Your task to perform on an android device: Open wifi settings Image 0: 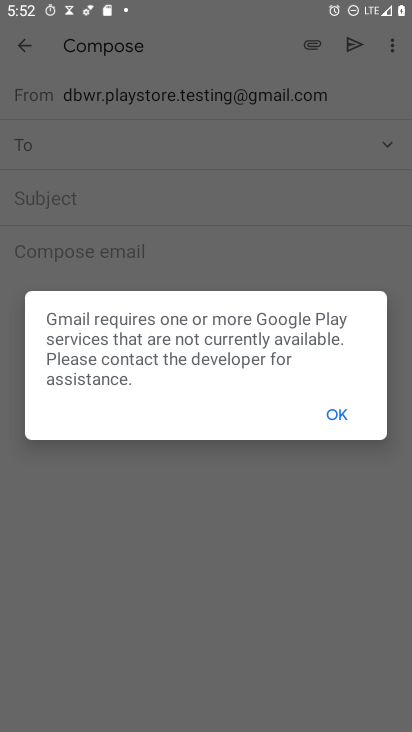
Step 0: press home button
Your task to perform on an android device: Open wifi settings Image 1: 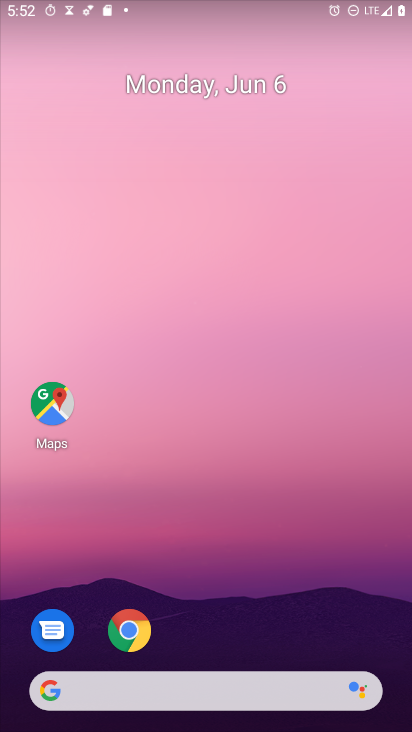
Step 1: drag from (293, 591) to (181, 17)
Your task to perform on an android device: Open wifi settings Image 2: 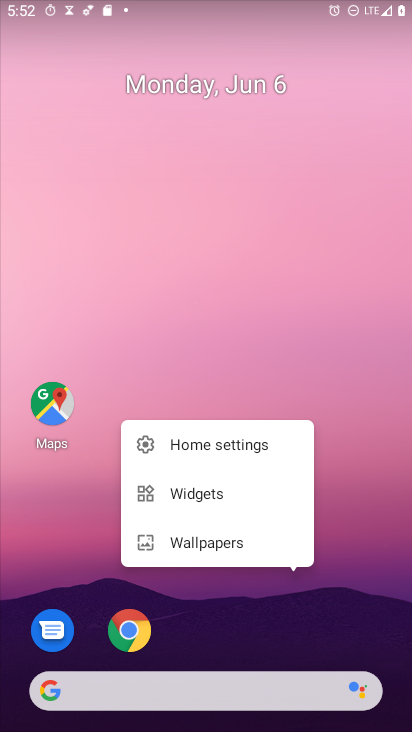
Step 2: drag from (244, 609) to (232, 13)
Your task to perform on an android device: Open wifi settings Image 3: 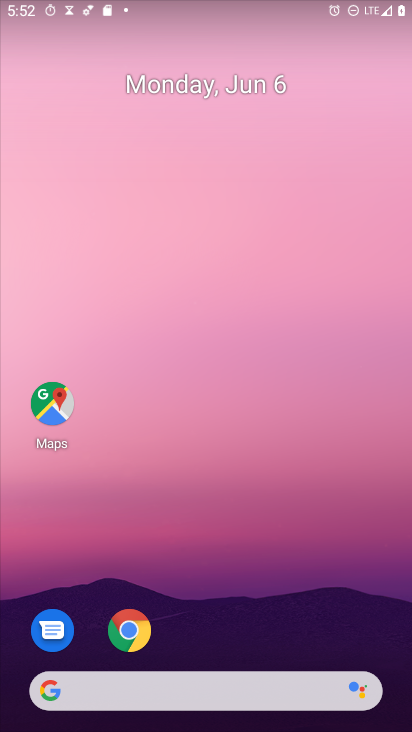
Step 3: drag from (289, 628) to (3, 84)
Your task to perform on an android device: Open wifi settings Image 4: 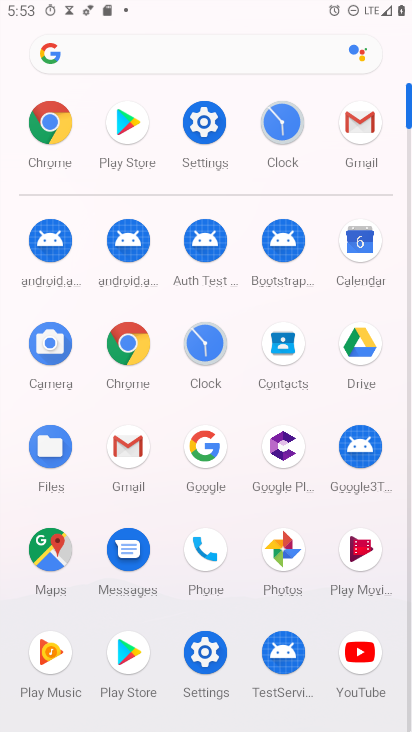
Step 4: click (199, 115)
Your task to perform on an android device: Open wifi settings Image 5: 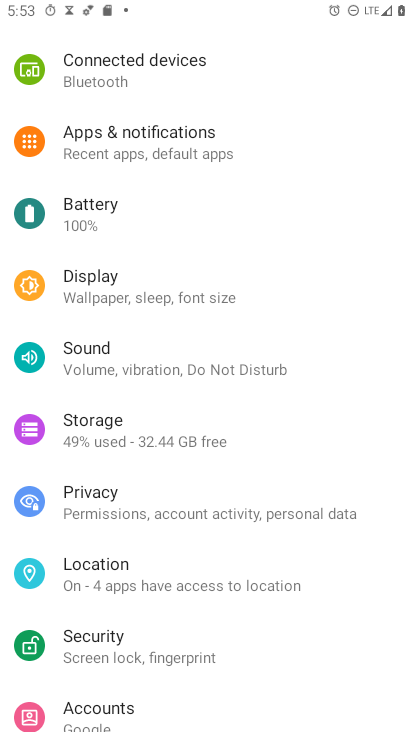
Step 5: drag from (183, 97) to (156, 471)
Your task to perform on an android device: Open wifi settings Image 6: 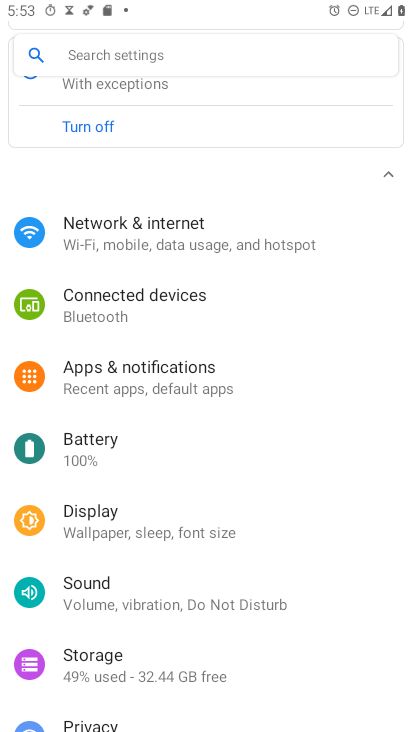
Step 6: click (122, 216)
Your task to perform on an android device: Open wifi settings Image 7: 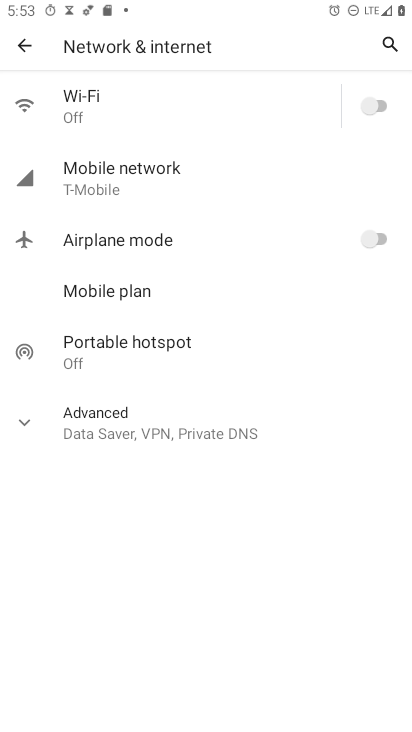
Step 7: task complete